Your task to perform on an android device: Play the last video I watched on Youtube Image 0: 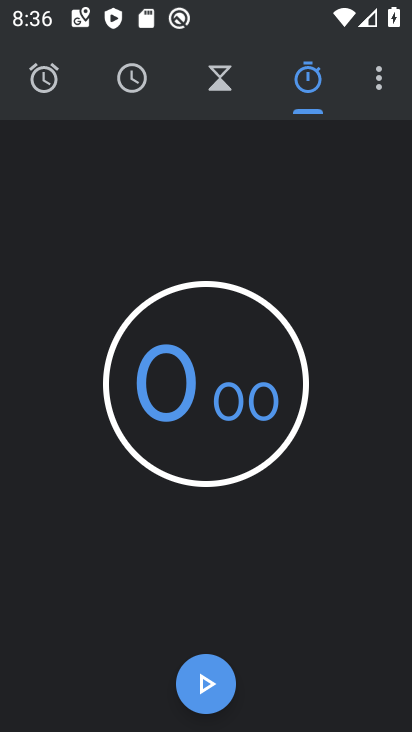
Step 0: drag from (263, 665) to (361, 320)
Your task to perform on an android device: Play the last video I watched on Youtube Image 1: 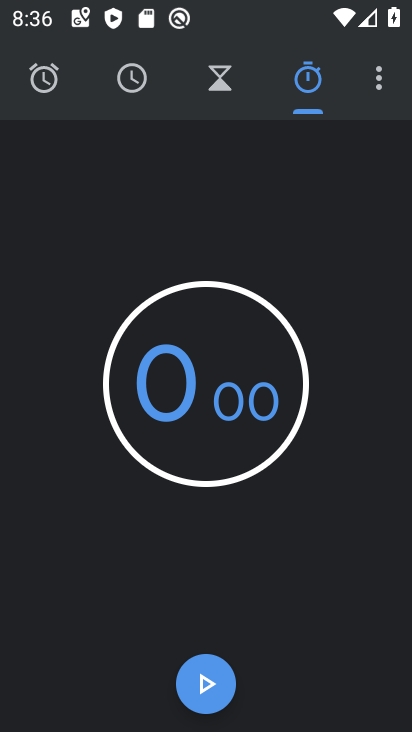
Step 1: press home button
Your task to perform on an android device: Play the last video I watched on Youtube Image 2: 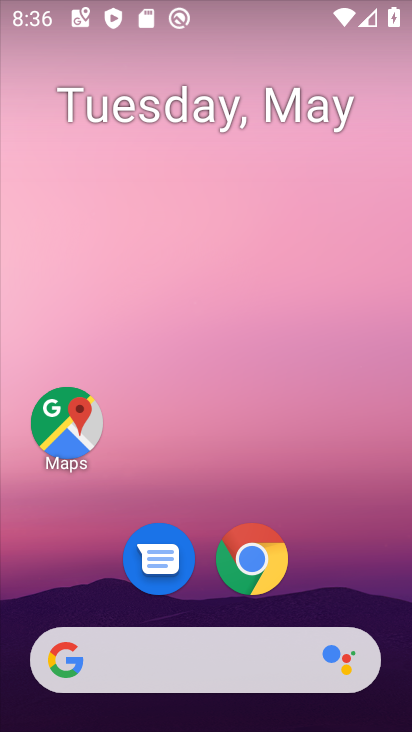
Step 2: drag from (232, 664) to (308, 279)
Your task to perform on an android device: Play the last video I watched on Youtube Image 3: 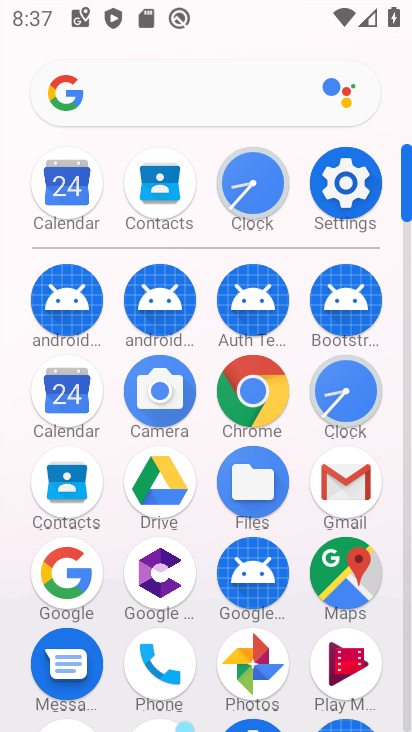
Step 3: drag from (200, 634) to (225, 338)
Your task to perform on an android device: Play the last video I watched on Youtube Image 4: 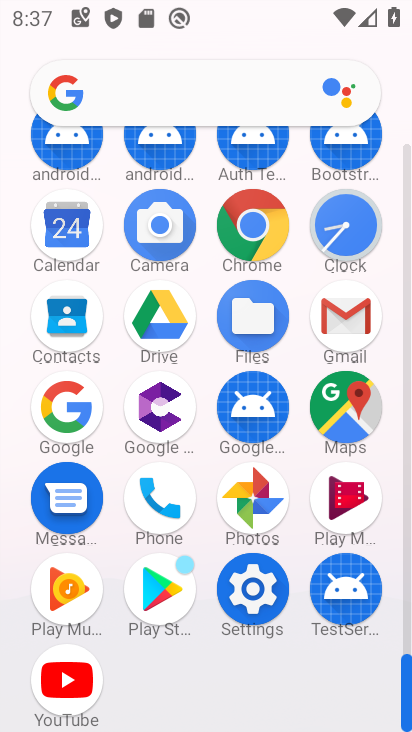
Step 4: click (77, 661)
Your task to perform on an android device: Play the last video I watched on Youtube Image 5: 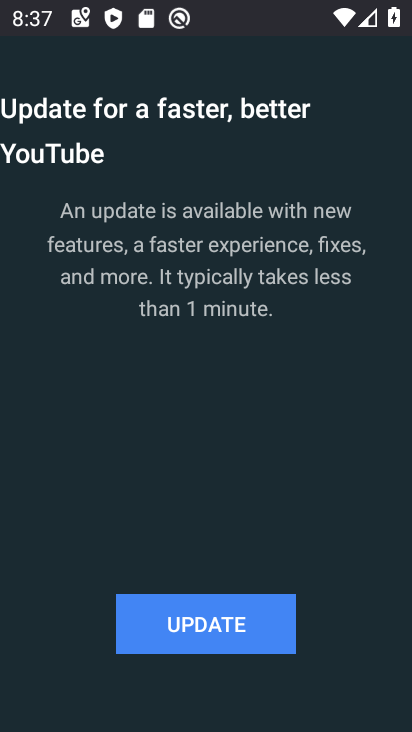
Step 5: click (188, 625)
Your task to perform on an android device: Play the last video I watched on Youtube Image 6: 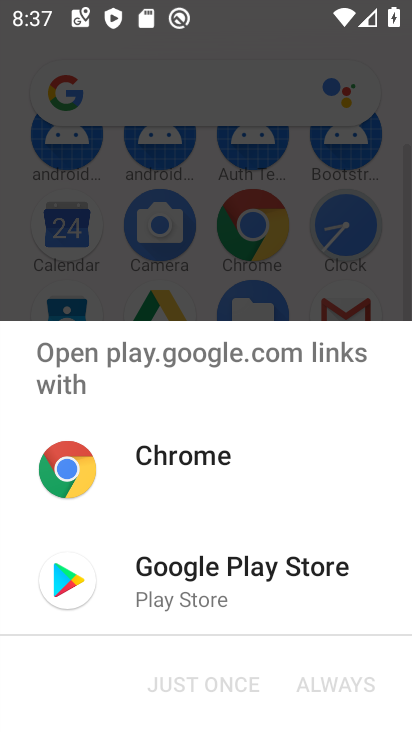
Step 6: click (202, 600)
Your task to perform on an android device: Play the last video I watched on Youtube Image 7: 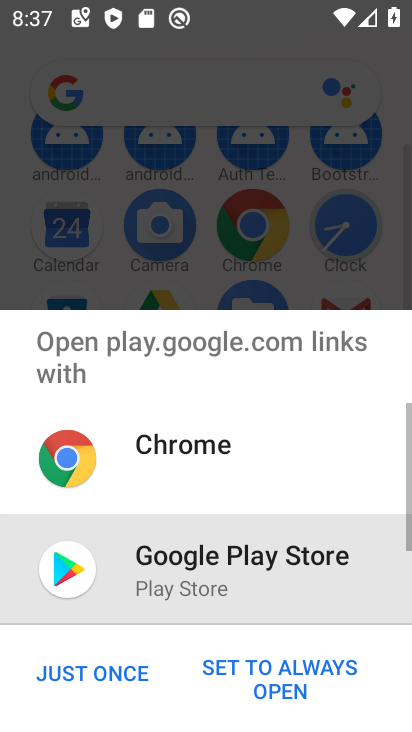
Step 7: click (107, 689)
Your task to perform on an android device: Play the last video I watched on Youtube Image 8: 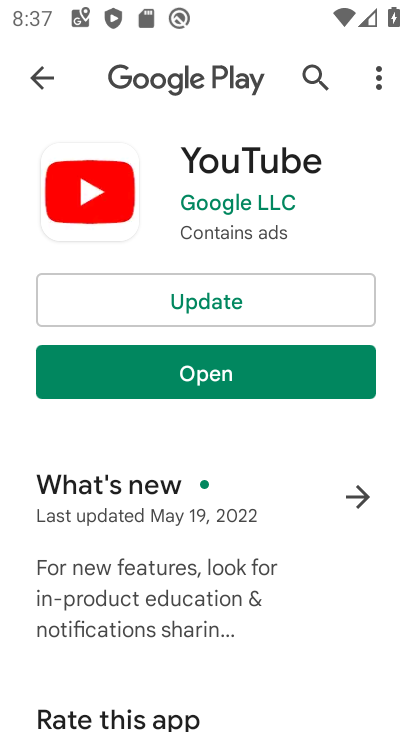
Step 8: click (205, 313)
Your task to perform on an android device: Play the last video I watched on Youtube Image 9: 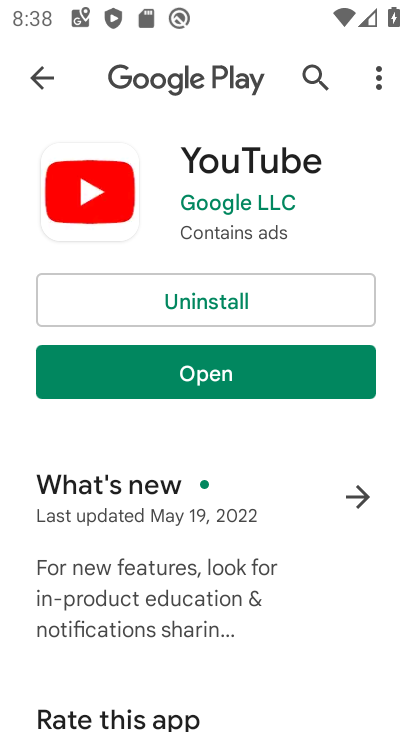
Step 9: click (189, 387)
Your task to perform on an android device: Play the last video I watched on Youtube Image 10: 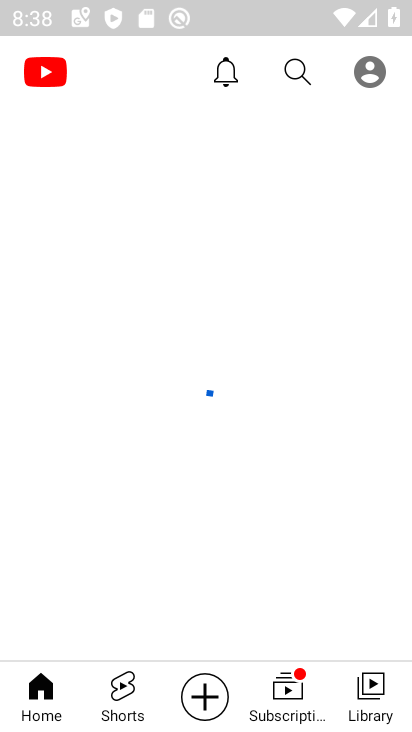
Step 10: click (342, 707)
Your task to perform on an android device: Play the last video I watched on Youtube Image 11: 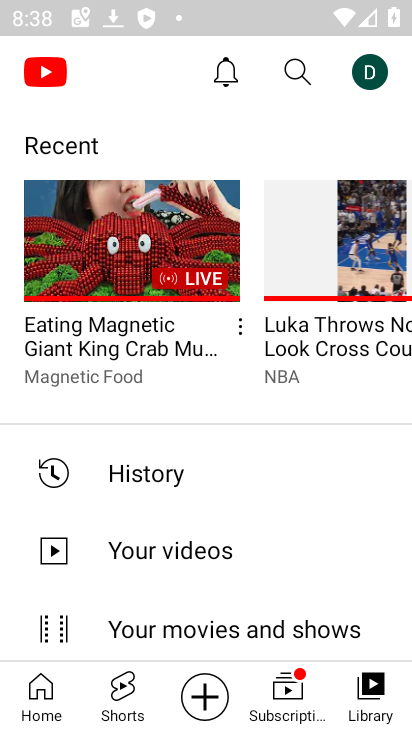
Step 11: click (133, 476)
Your task to perform on an android device: Play the last video I watched on Youtube Image 12: 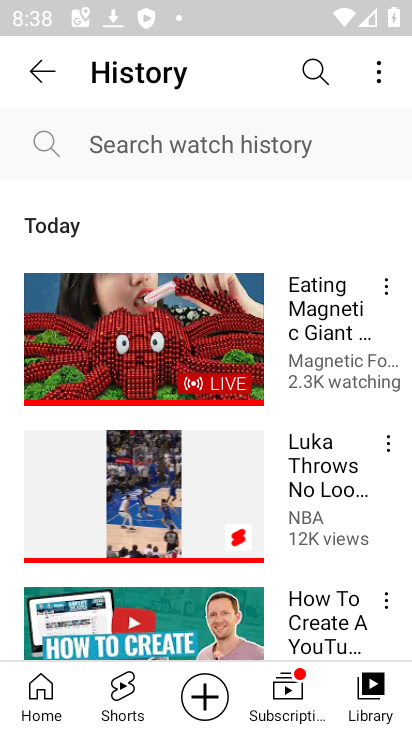
Step 12: click (175, 319)
Your task to perform on an android device: Play the last video I watched on Youtube Image 13: 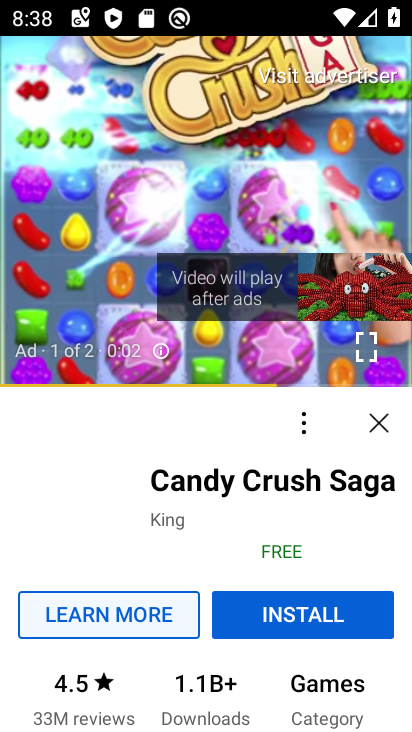
Step 13: task complete